Your task to perform on an android device: turn on showing notifications on the lock screen Image 0: 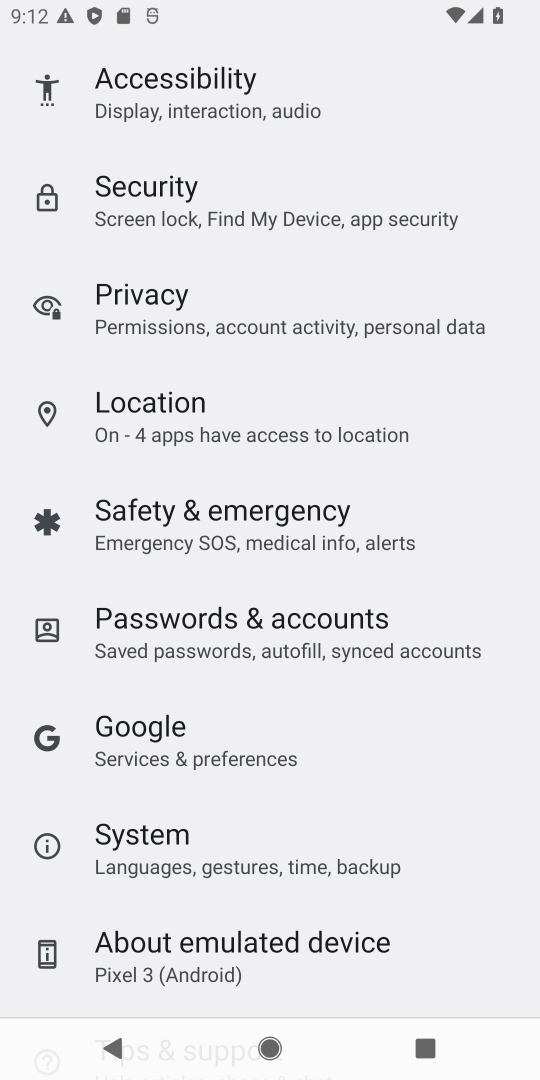
Step 0: press home button
Your task to perform on an android device: turn on showing notifications on the lock screen Image 1: 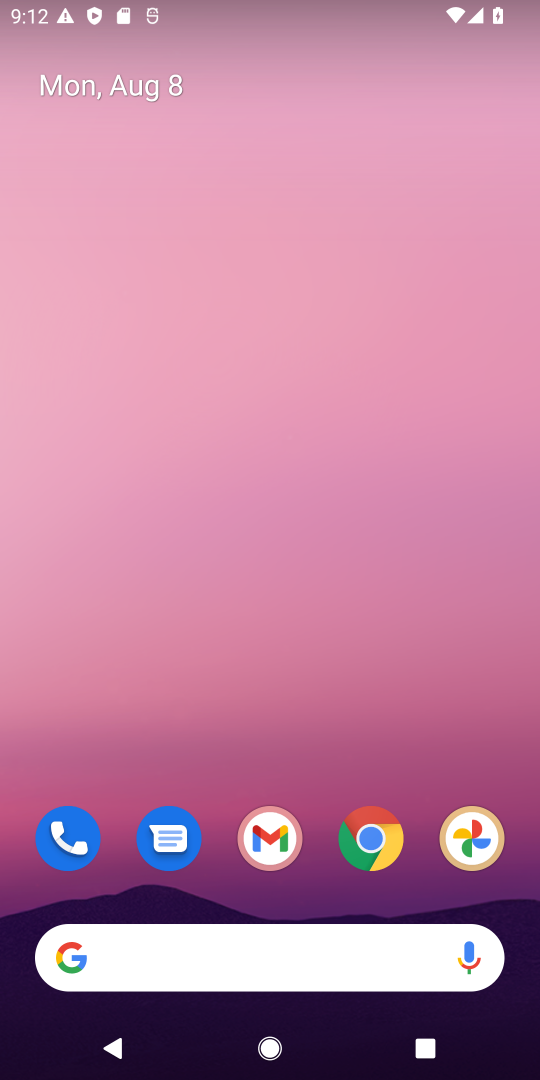
Step 1: drag from (326, 901) to (336, 172)
Your task to perform on an android device: turn on showing notifications on the lock screen Image 2: 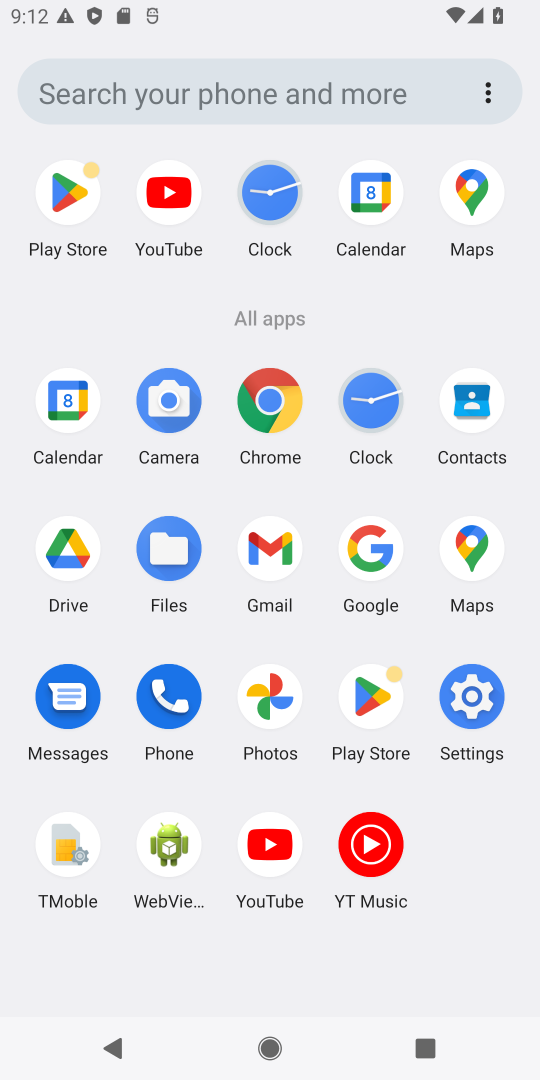
Step 2: click (476, 691)
Your task to perform on an android device: turn on showing notifications on the lock screen Image 3: 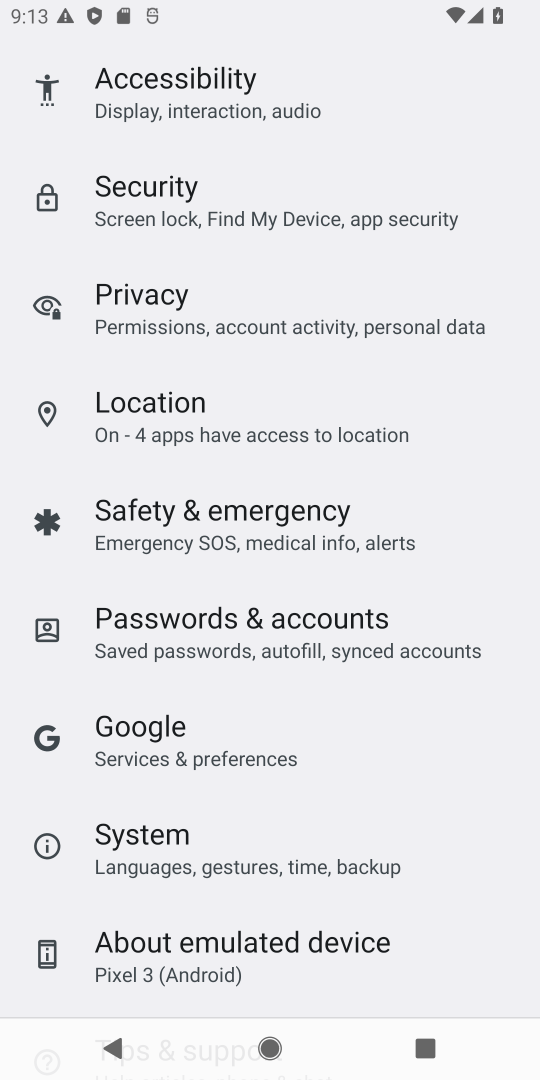
Step 3: drag from (362, 288) to (374, 1077)
Your task to perform on an android device: turn on showing notifications on the lock screen Image 4: 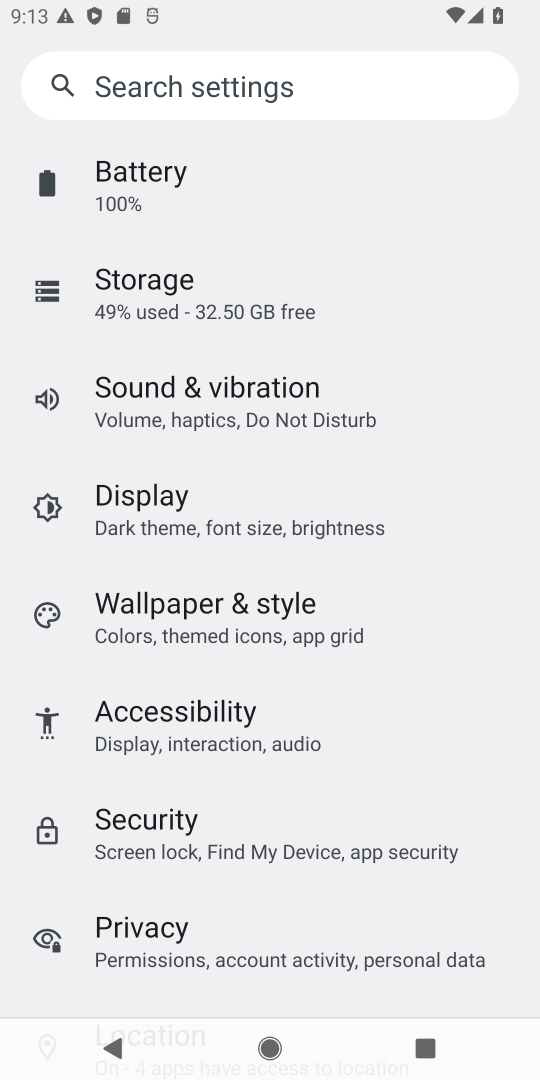
Step 4: drag from (274, 232) to (295, 1023)
Your task to perform on an android device: turn on showing notifications on the lock screen Image 5: 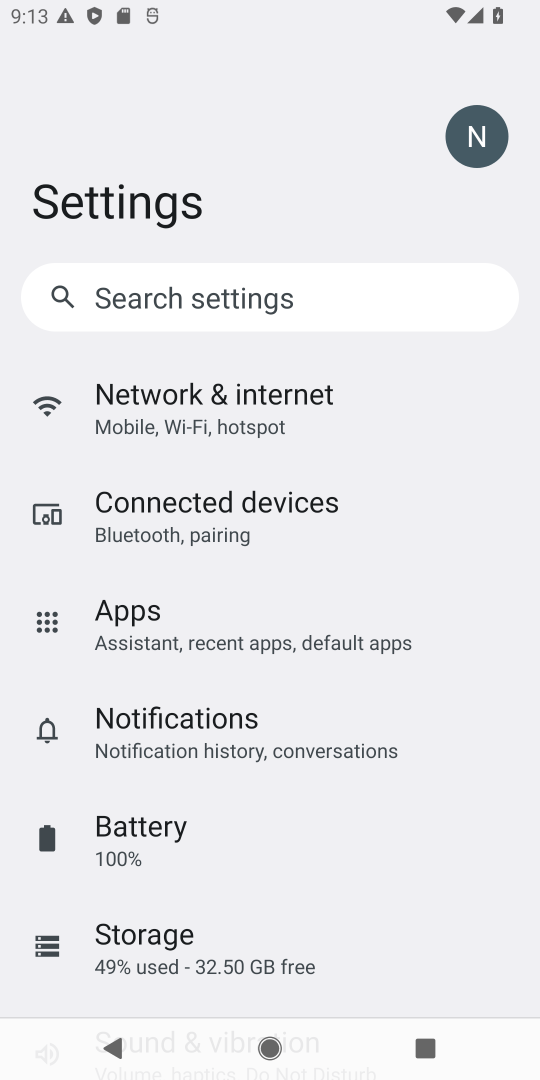
Step 5: click (184, 722)
Your task to perform on an android device: turn on showing notifications on the lock screen Image 6: 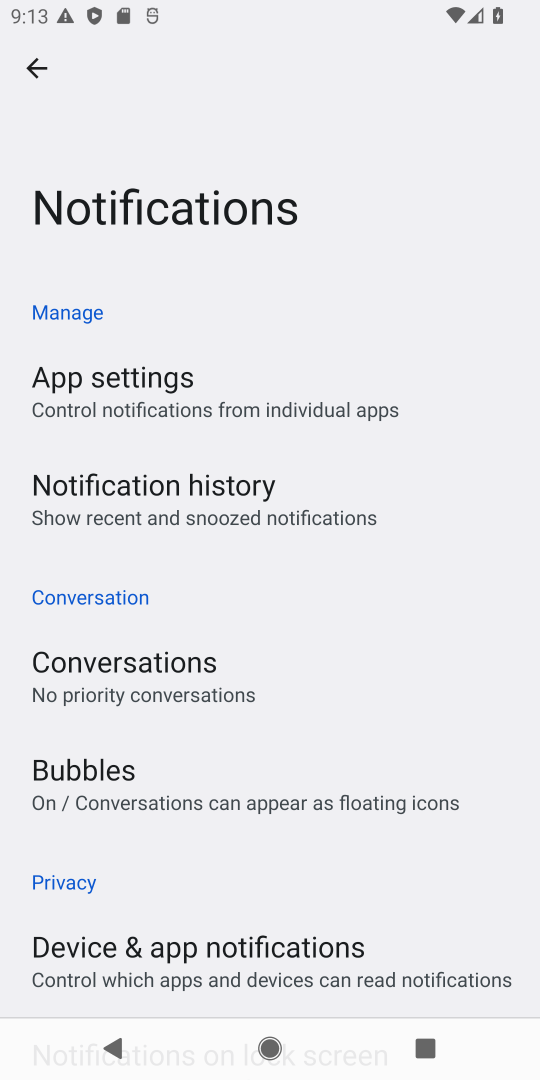
Step 6: drag from (370, 873) to (343, 363)
Your task to perform on an android device: turn on showing notifications on the lock screen Image 7: 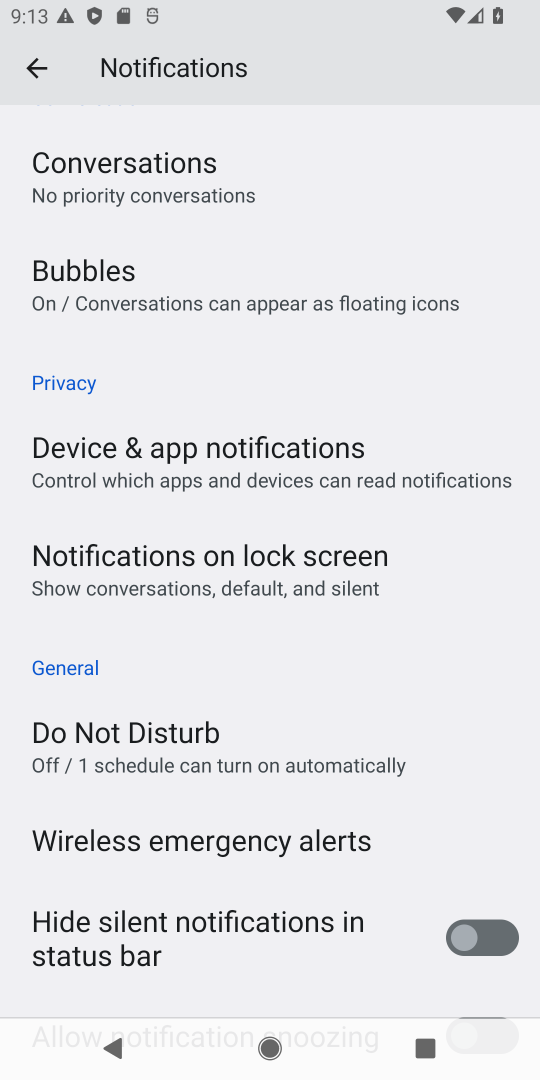
Step 7: click (211, 571)
Your task to perform on an android device: turn on showing notifications on the lock screen Image 8: 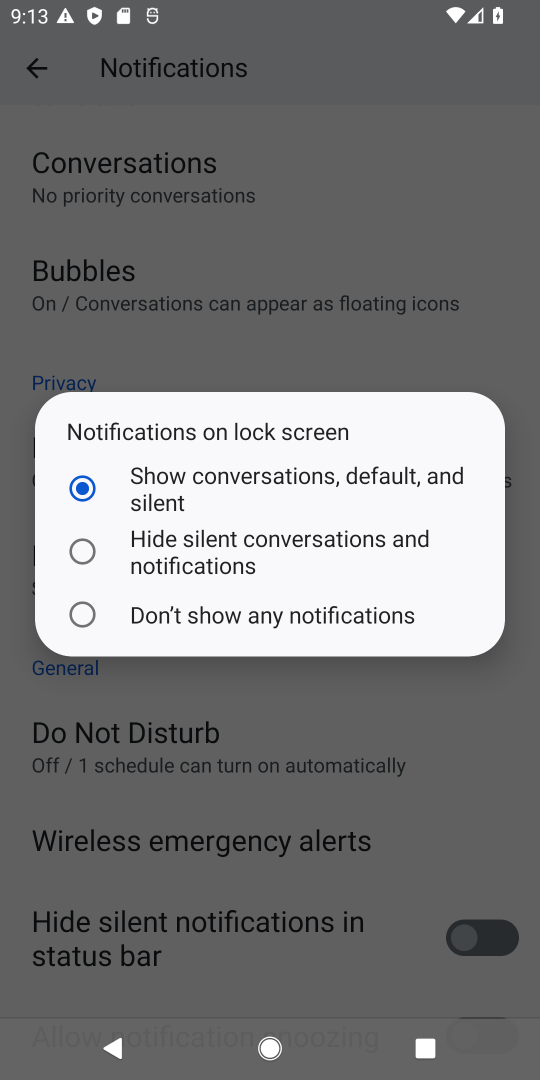
Step 8: task complete